Your task to perform on an android device: clear all cookies in the chrome app Image 0: 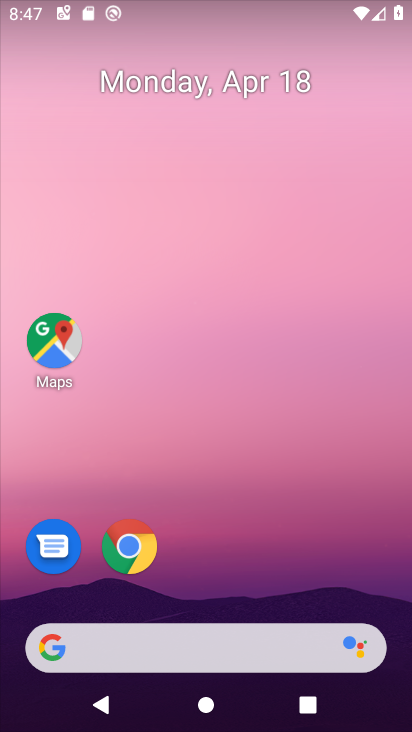
Step 0: drag from (292, 553) to (174, 117)
Your task to perform on an android device: clear all cookies in the chrome app Image 1: 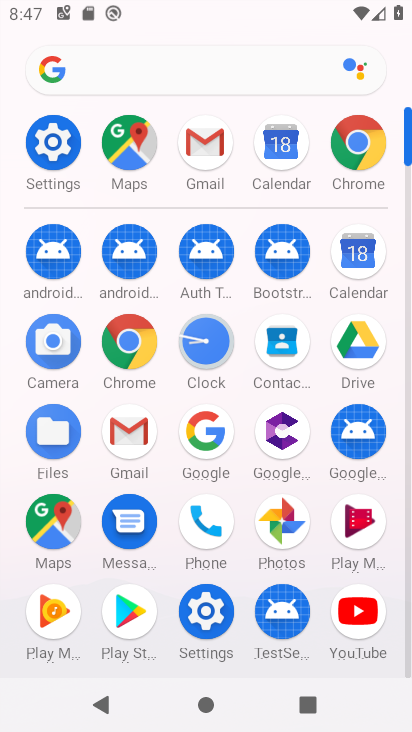
Step 1: click (357, 165)
Your task to perform on an android device: clear all cookies in the chrome app Image 2: 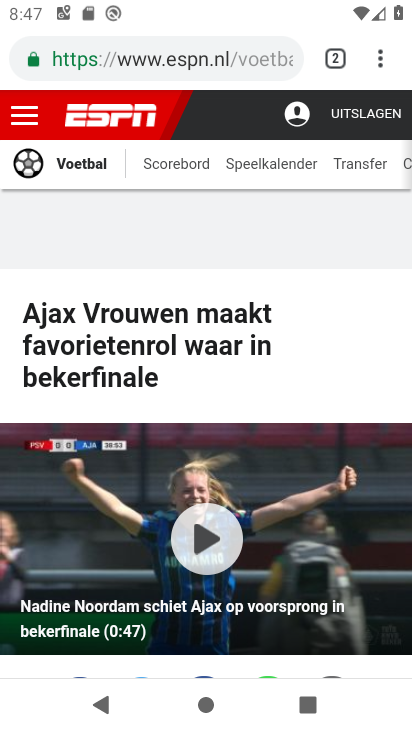
Step 2: click (370, 66)
Your task to perform on an android device: clear all cookies in the chrome app Image 3: 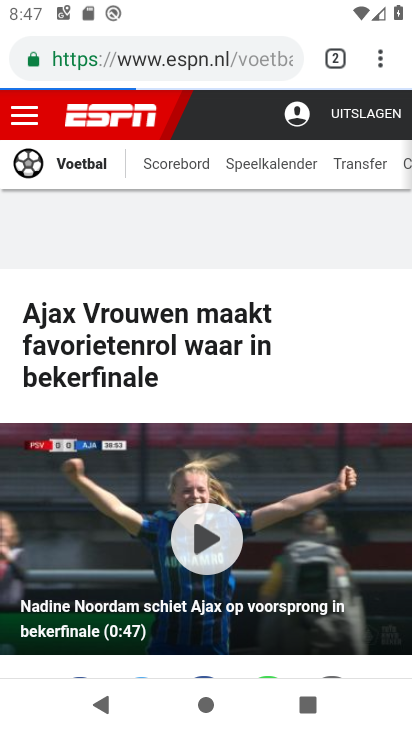
Step 3: drag from (370, 66) to (205, 410)
Your task to perform on an android device: clear all cookies in the chrome app Image 4: 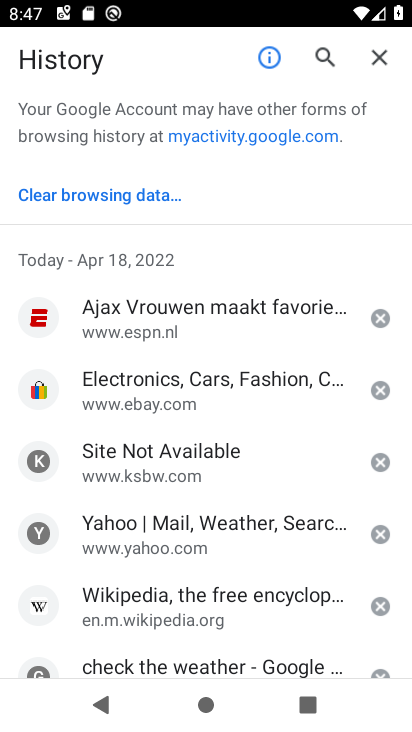
Step 4: click (118, 193)
Your task to perform on an android device: clear all cookies in the chrome app Image 5: 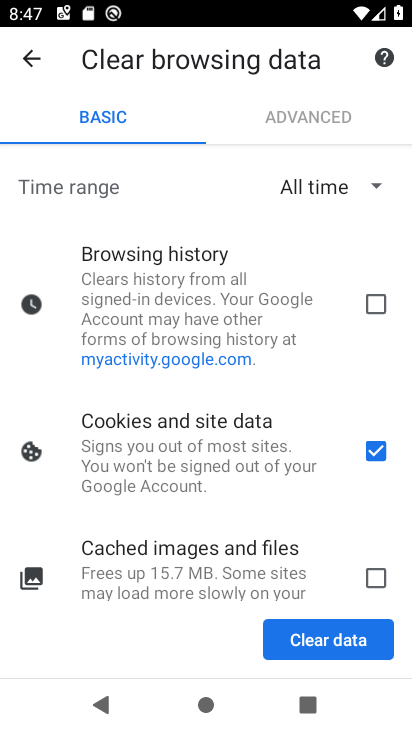
Step 5: click (346, 645)
Your task to perform on an android device: clear all cookies in the chrome app Image 6: 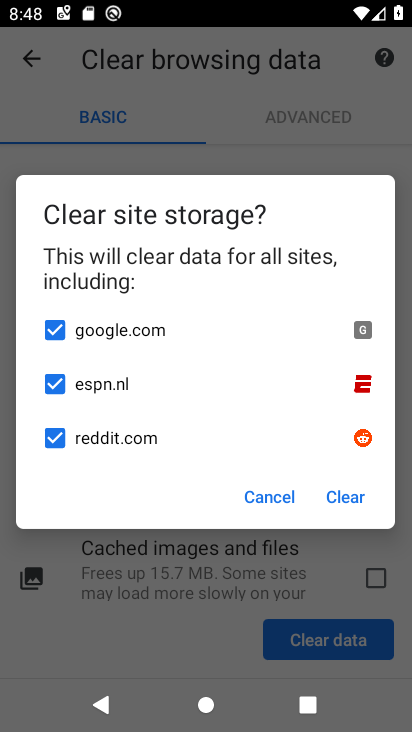
Step 6: click (354, 503)
Your task to perform on an android device: clear all cookies in the chrome app Image 7: 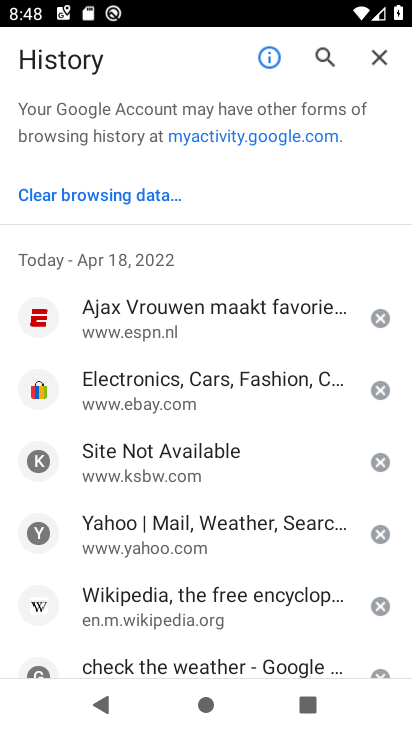
Step 7: task complete